Your task to perform on an android device: Check the weather Image 0: 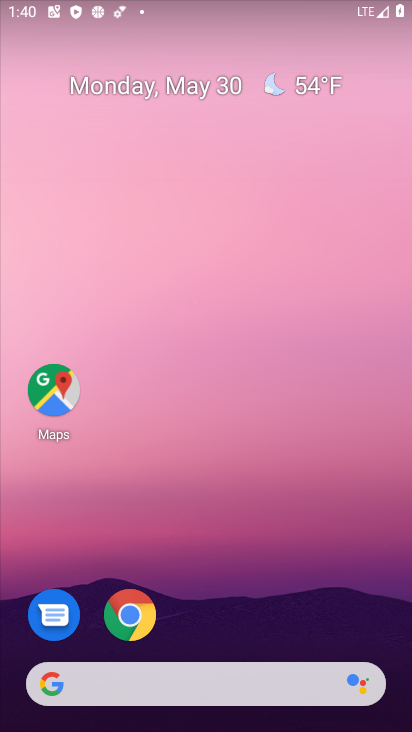
Step 0: click (319, 84)
Your task to perform on an android device: Check the weather Image 1: 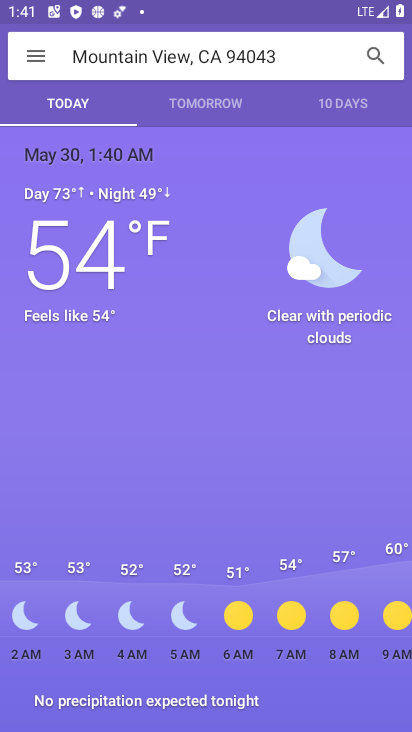
Step 1: task complete